Your task to perform on an android device: add a label to a message in the gmail app Image 0: 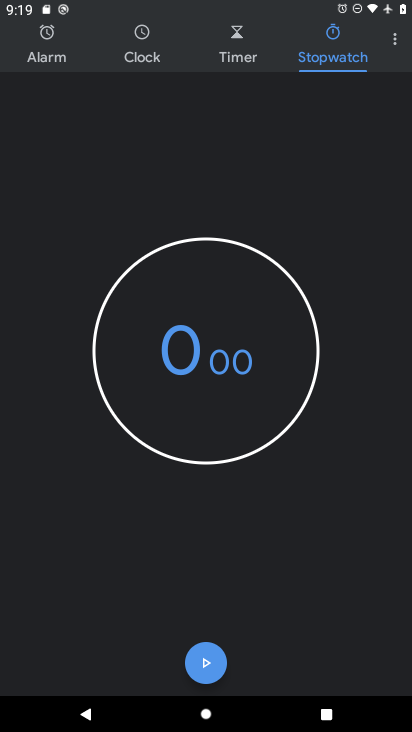
Step 0: press home button
Your task to perform on an android device: add a label to a message in the gmail app Image 1: 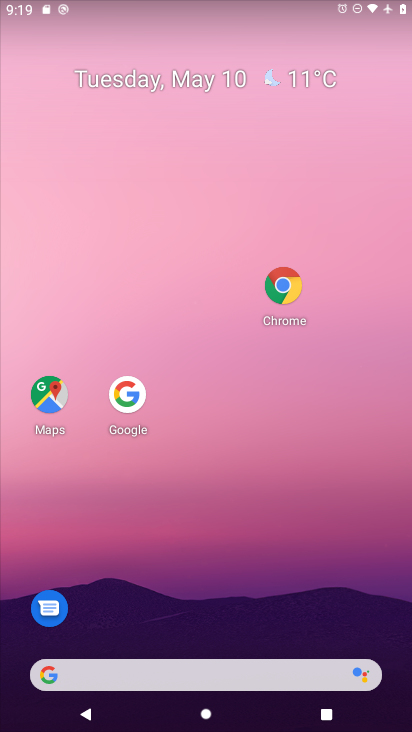
Step 1: drag from (218, 650) to (277, 145)
Your task to perform on an android device: add a label to a message in the gmail app Image 2: 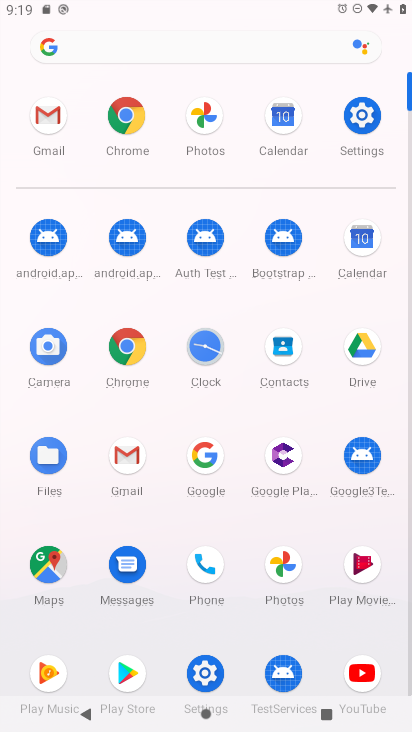
Step 2: click (56, 126)
Your task to perform on an android device: add a label to a message in the gmail app Image 3: 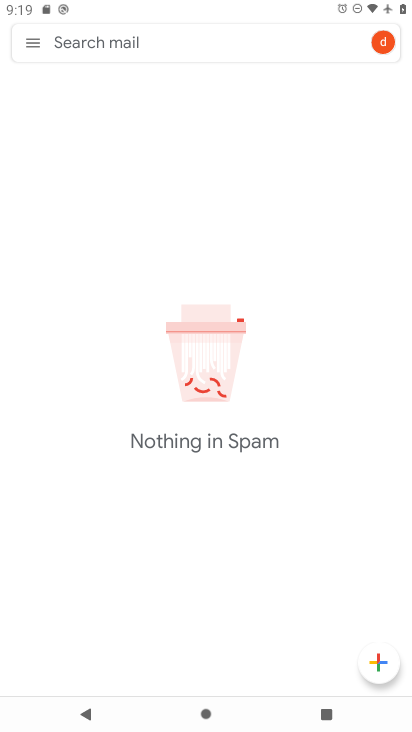
Step 3: click (30, 46)
Your task to perform on an android device: add a label to a message in the gmail app Image 4: 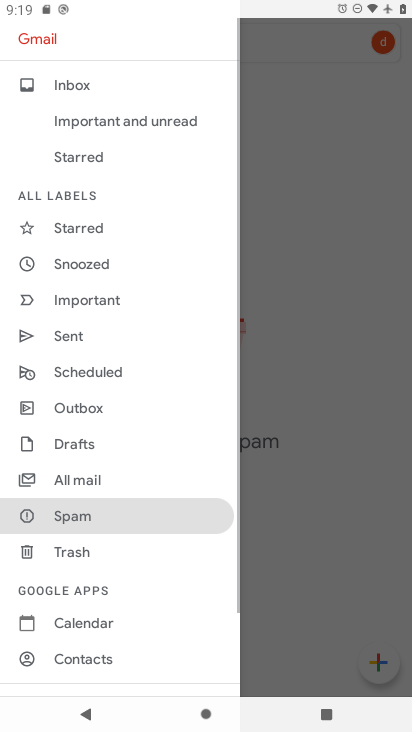
Step 4: click (95, 476)
Your task to perform on an android device: add a label to a message in the gmail app Image 5: 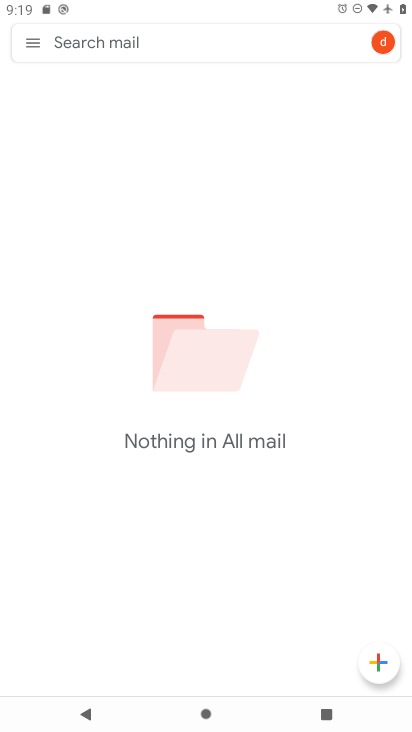
Step 5: task complete